Your task to perform on an android device: search for starred emails in the gmail app Image 0: 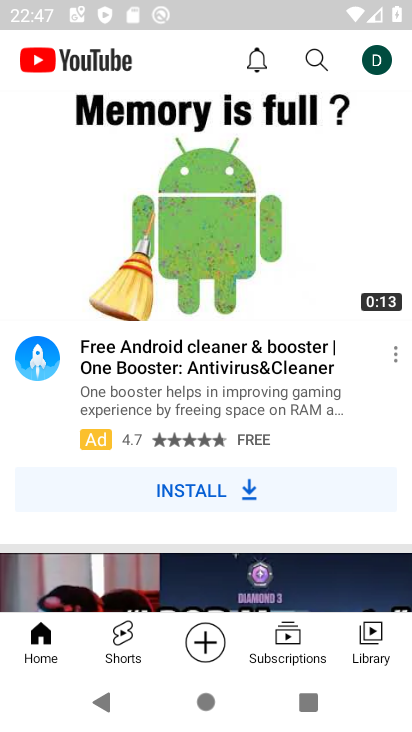
Step 0: click (248, 535)
Your task to perform on an android device: search for starred emails in the gmail app Image 1: 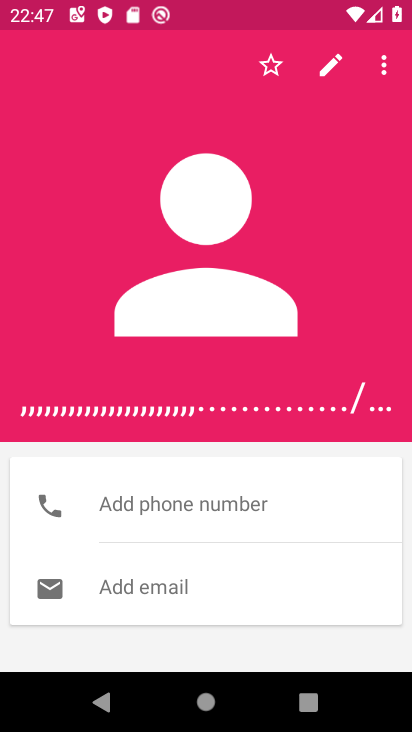
Step 1: press home button
Your task to perform on an android device: search for starred emails in the gmail app Image 2: 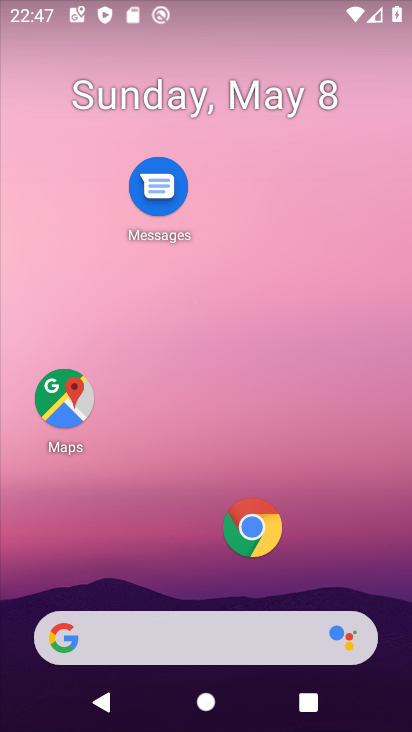
Step 2: drag from (187, 523) to (196, 50)
Your task to perform on an android device: search for starred emails in the gmail app Image 3: 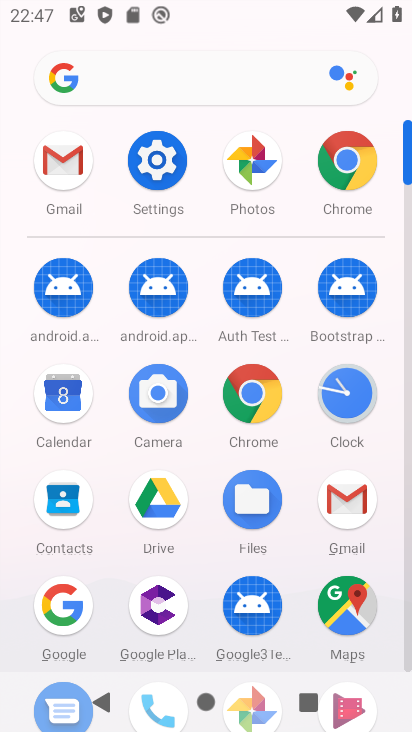
Step 3: click (66, 154)
Your task to perform on an android device: search for starred emails in the gmail app Image 4: 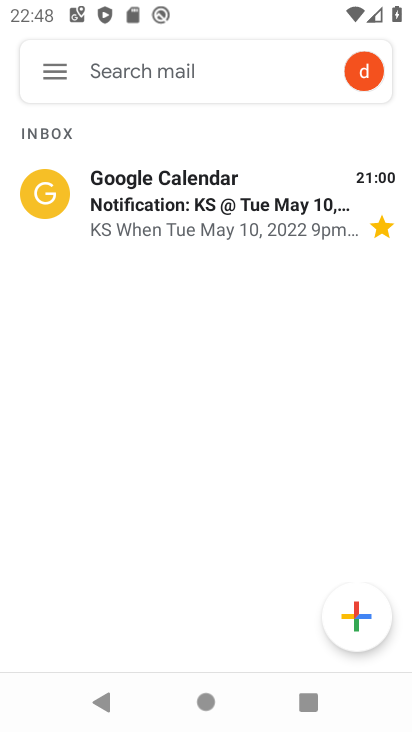
Step 4: click (53, 79)
Your task to perform on an android device: search for starred emails in the gmail app Image 5: 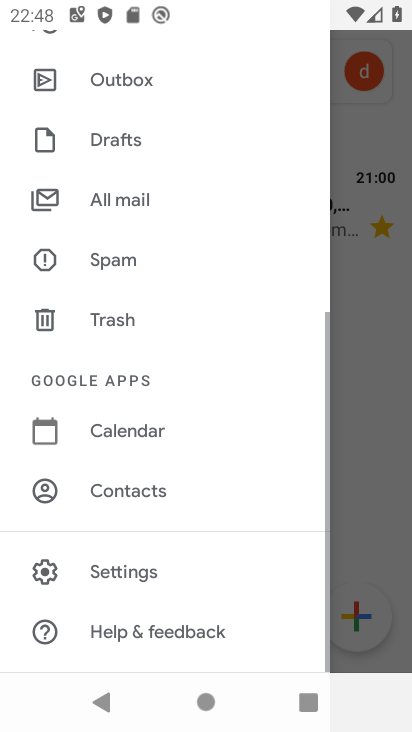
Step 5: drag from (146, 253) to (164, 619)
Your task to perform on an android device: search for starred emails in the gmail app Image 6: 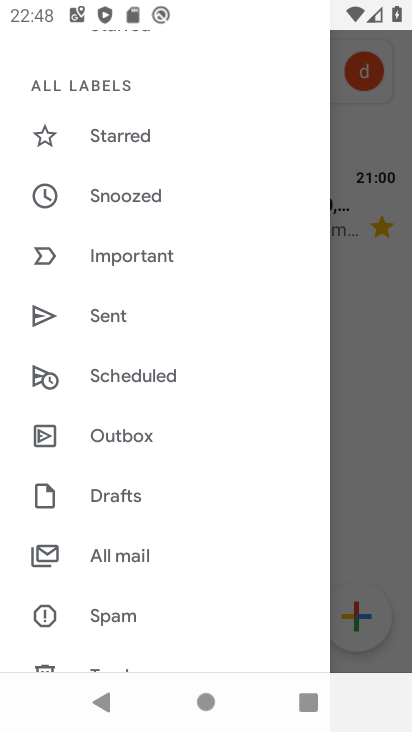
Step 6: click (119, 143)
Your task to perform on an android device: search for starred emails in the gmail app Image 7: 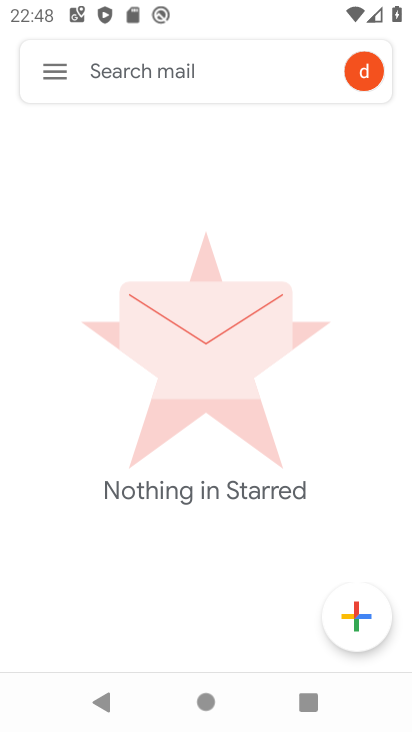
Step 7: task complete